Your task to perform on an android device: turn on javascript in the chrome app Image 0: 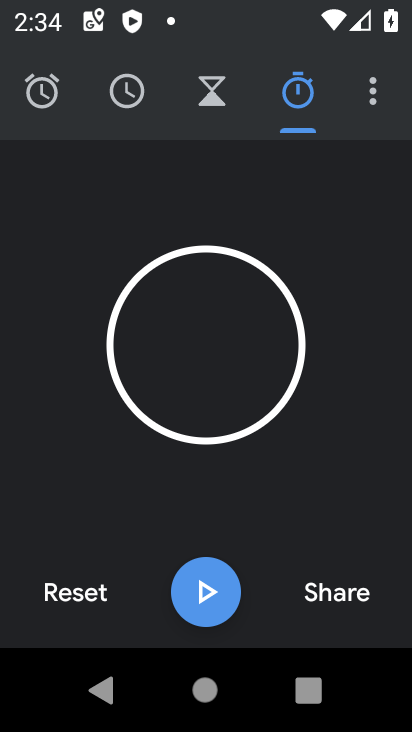
Step 0: press home button
Your task to perform on an android device: turn on javascript in the chrome app Image 1: 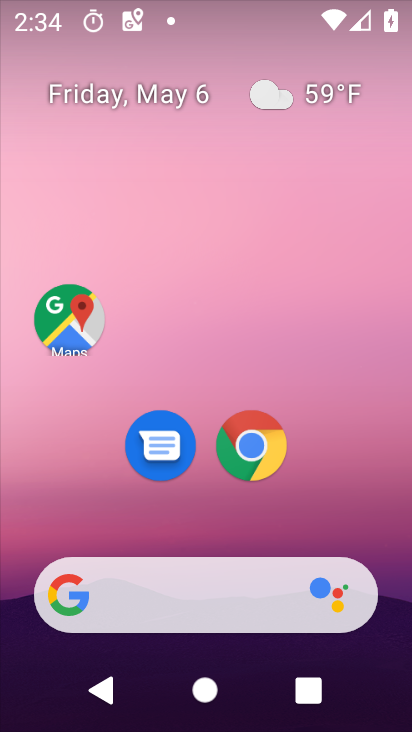
Step 1: drag from (176, 127) to (154, 59)
Your task to perform on an android device: turn on javascript in the chrome app Image 2: 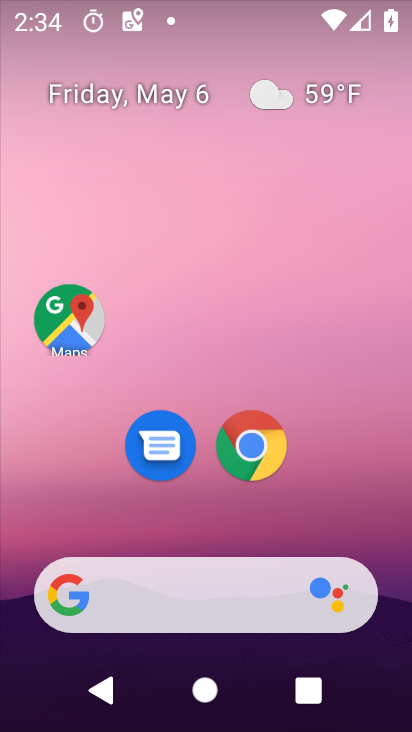
Step 2: drag from (185, 285) to (192, 234)
Your task to perform on an android device: turn on javascript in the chrome app Image 3: 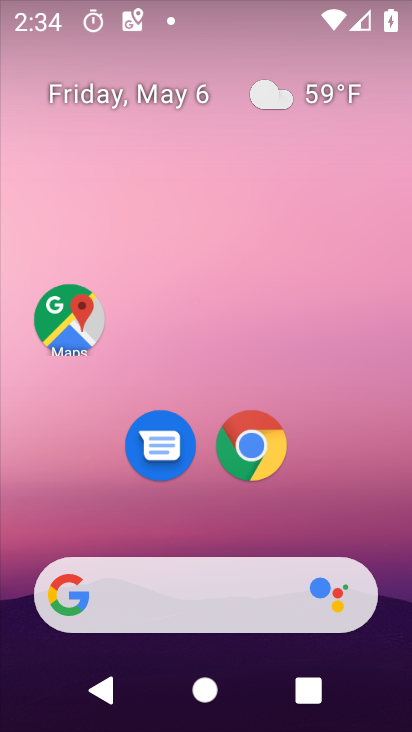
Step 3: drag from (358, 481) to (231, 166)
Your task to perform on an android device: turn on javascript in the chrome app Image 4: 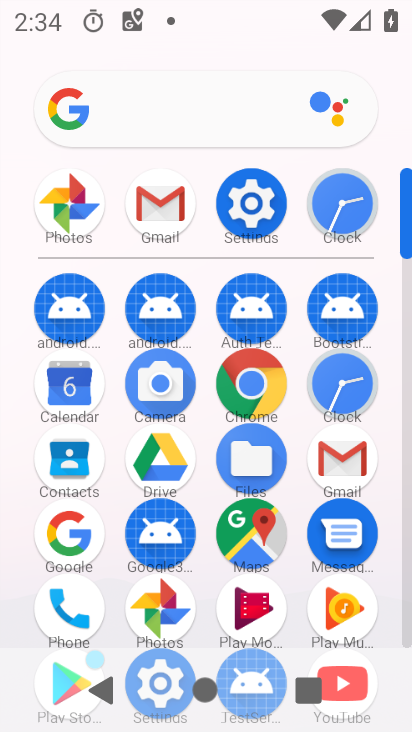
Step 4: click (262, 383)
Your task to perform on an android device: turn on javascript in the chrome app Image 5: 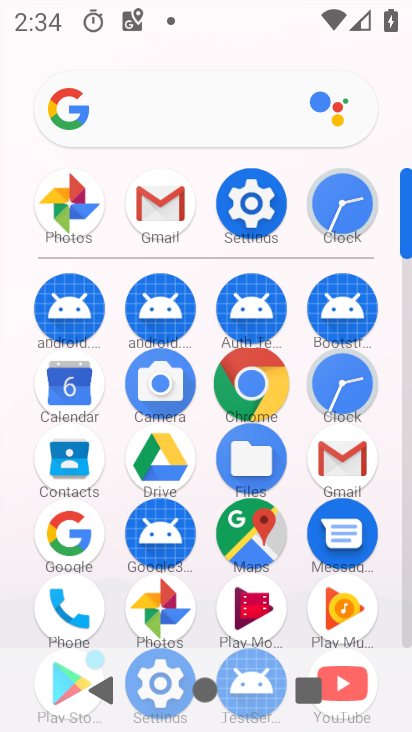
Step 5: click (261, 383)
Your task to perform on an android device: turn on javascript in the chrome app Image 6: 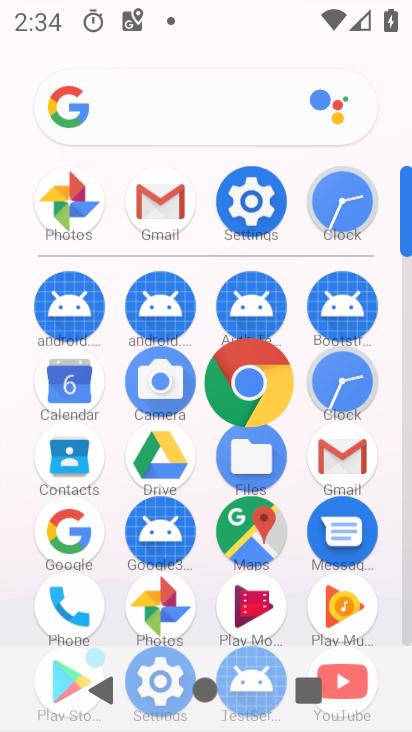
Step 6: click (259, 384)
Your task to perform on an android device: turn on javascript in the chrome app Image 7: 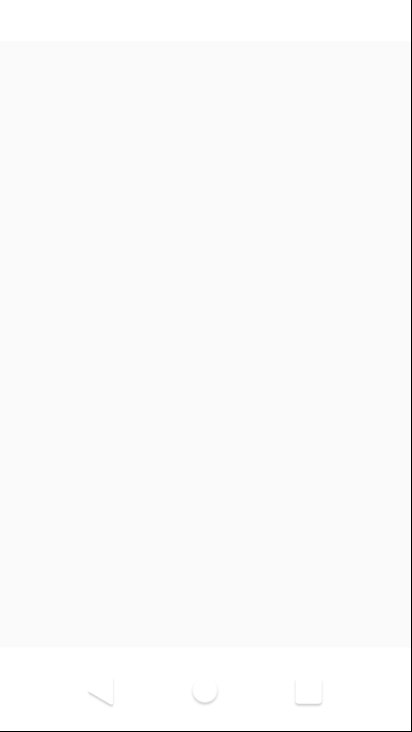
Step 7: click (259, 384)
Your task to perform on an android device: turn on javascript in the chrome app Image 8: 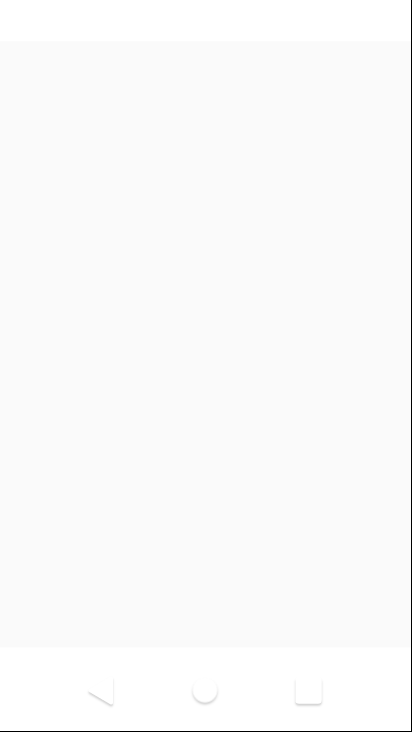
Step 8: click (259, 384)
Your task to perform on an android device: turn on javascript in the chrome app Image 9: 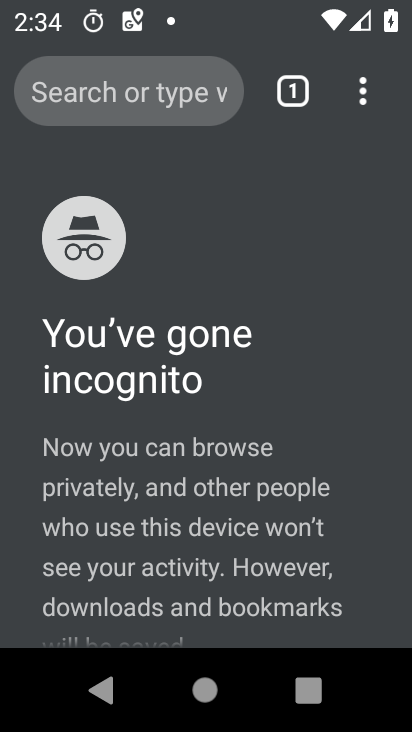
Step 9: click (360, 83)
Your task to perform on an android device: turn on javascript in the chrome app Image 10: 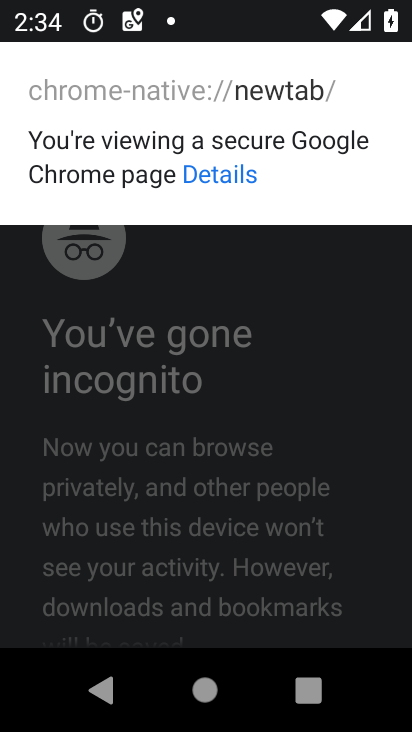
Step 10: click (359, 84)
Your task to perform on an android device: turn on javascript in the chrome app Image 11: 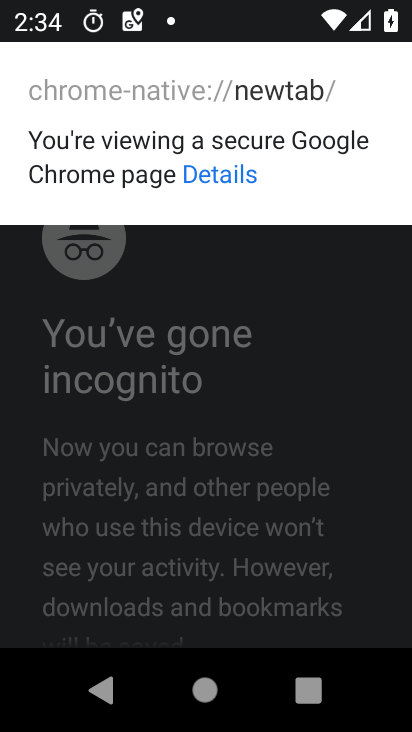
Step 11: click (317, 311)
Your task to perform on an android device: turn on javascript in the chrome app Image 12: 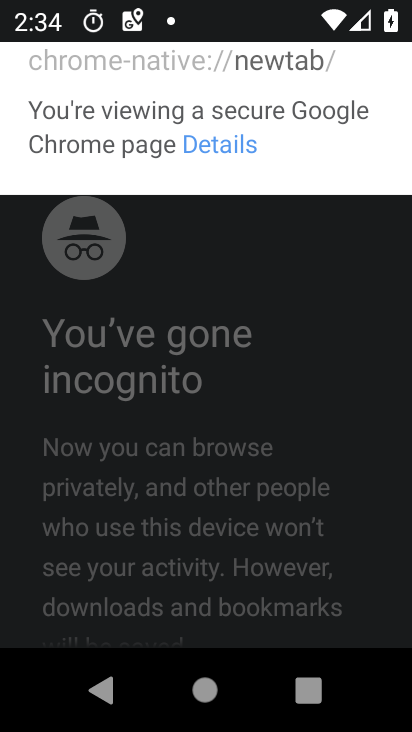
Step 12: click (320, 304)
Your task to perform on an android device: turn on javascript in the chrome app Image 13: 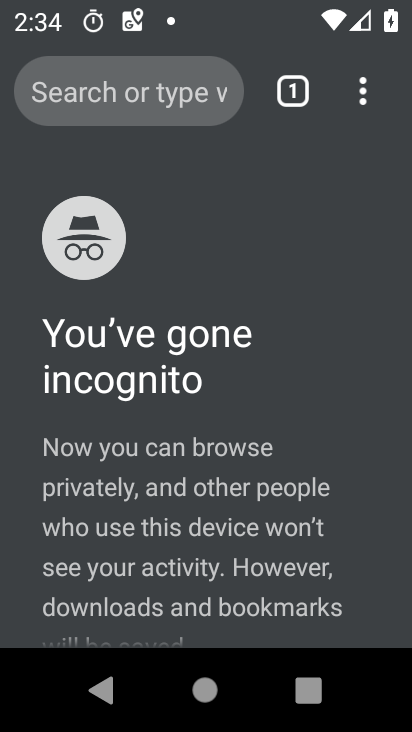
Step 13: click (320, 304)
Your task to perform on an android device: turn on javascript in the chrome app Image 14: 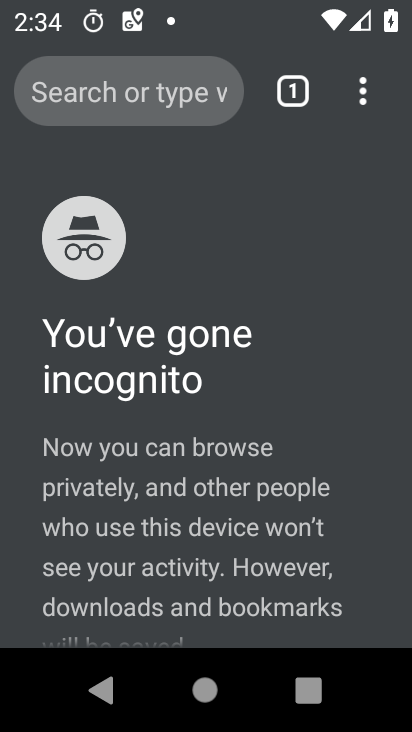
Step 14: click (320, 304)
Your task to perform on an android device: turn on javascript in the chrome app Image 15: 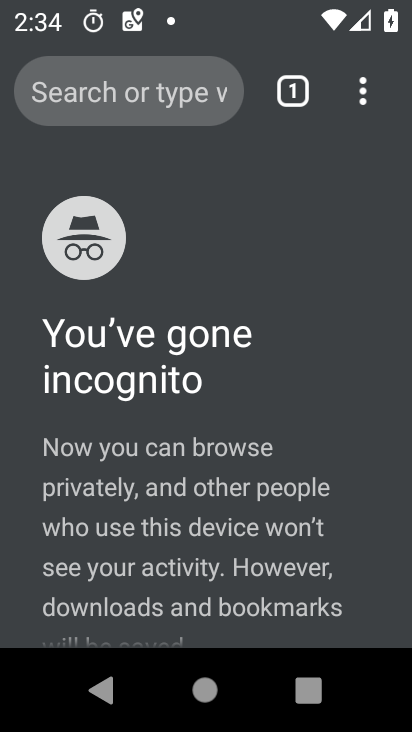
Step 15: drag from (359, 92) to (94, 467)
Your task to perform on an android device: turn on javascript in the chrome app Image 16: 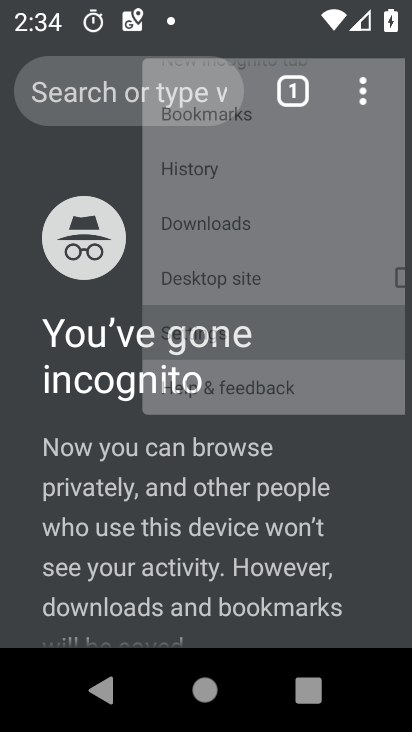
Step 16: click (94, 467)
Your task to perform on an android device: turn on javascript in the chrome app Image 17: 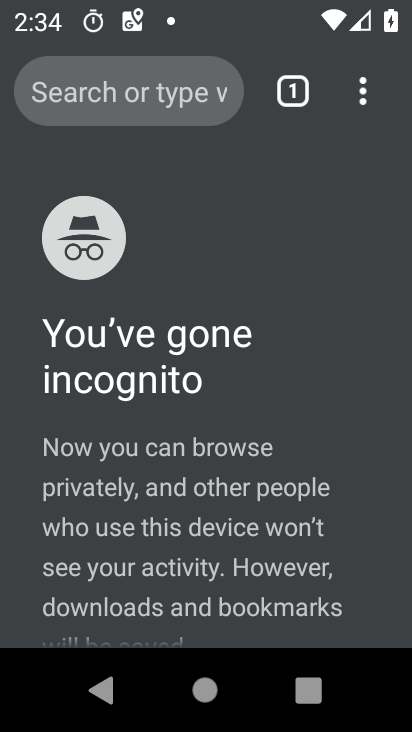
Step 17: click (93, 474)
Your task to perform on an android device: turn on javascript in the chrome app Image 18: 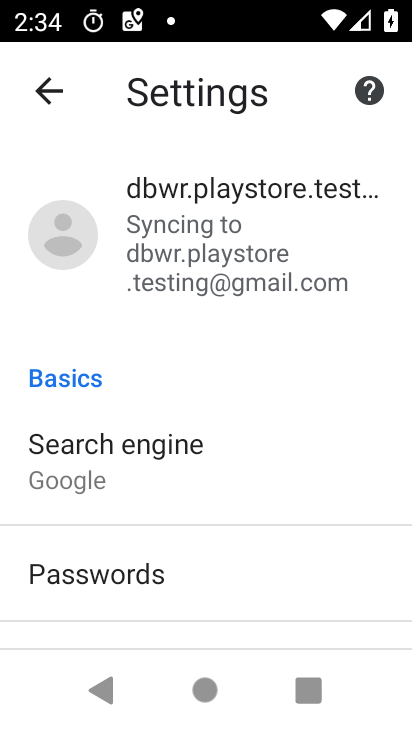
Step 18: drag from (214, 481) to (128, 174)
Your task to perform on an android device: turn on javascript in the chrome app Image 19: 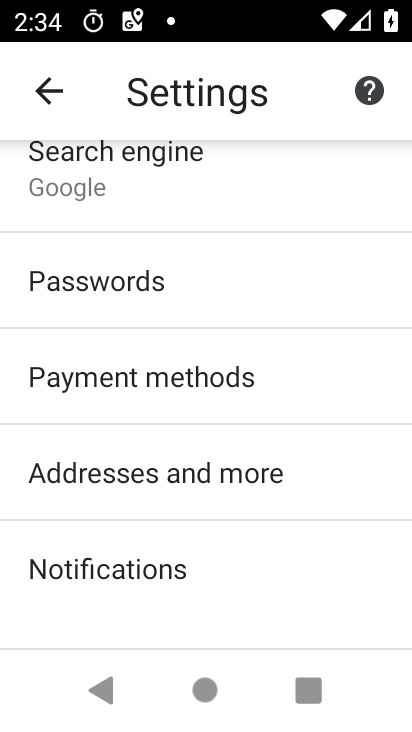
Step 19: drag from (163, 520) to (83, 184)
Your task to perform on an android device: turn on javascript in the chrome app Image 20: 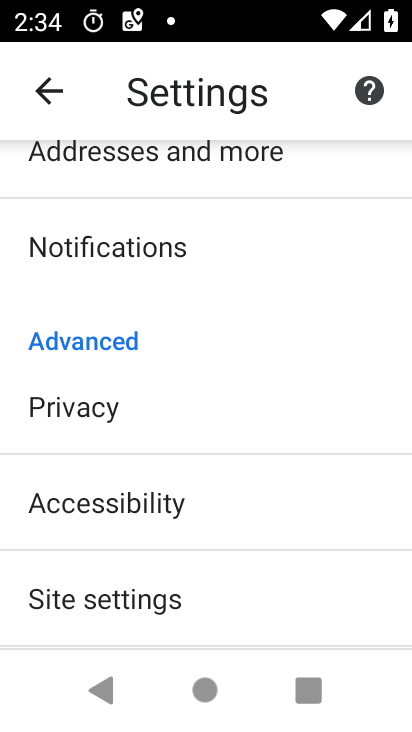
Step 20: click (120, 594)
Your task to perform on an android device: turn on javascript in the chrome app Image 21: 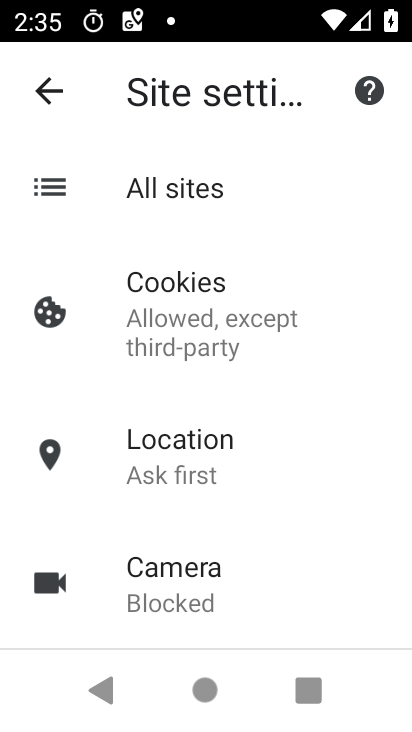
Step 21: drag from (182, 505) to (109, 91)
Your task to perform on an android device: turn on javascript in the chrome app Image 22: 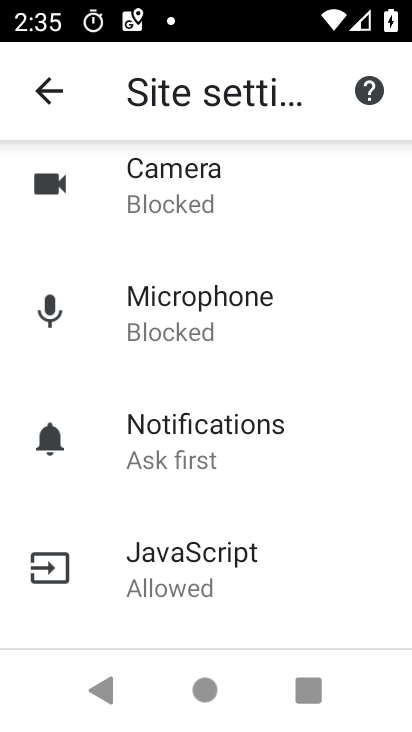
Step 22: drag from (208, 500) to (120, 41)
Your task to perform on an android device: turn on javascript in the chrome app Image 23: 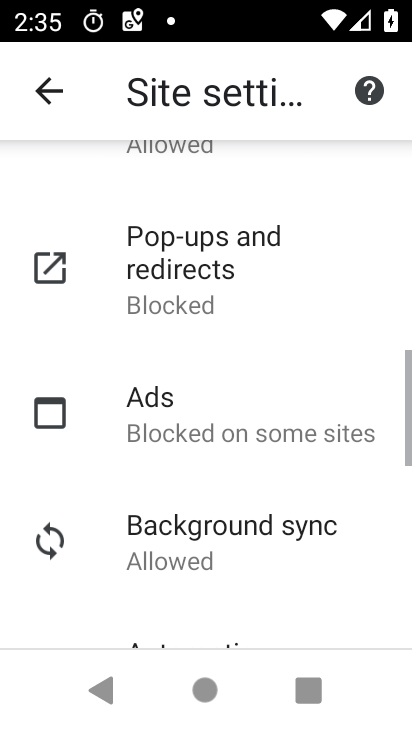
Step 23: drag from (136, 472) to (84, 3)
Your task to perform on an android device: turn on javascript in the chrome app Image 24: 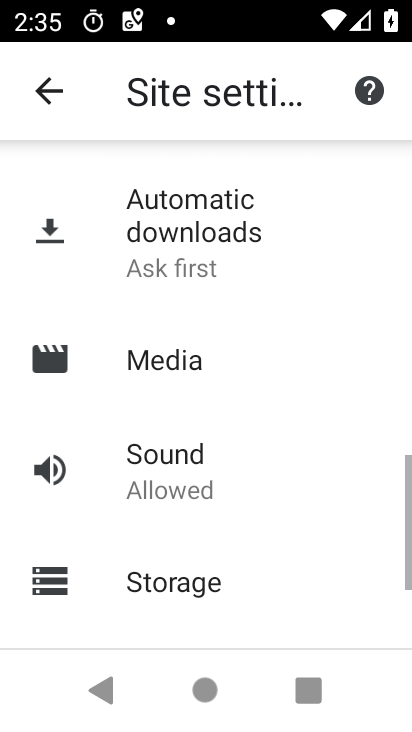
Step 24: drag from (203, 531) to (158, 13)
Your task to perform on an android device: turn on javascript in the chrome app Image 25: 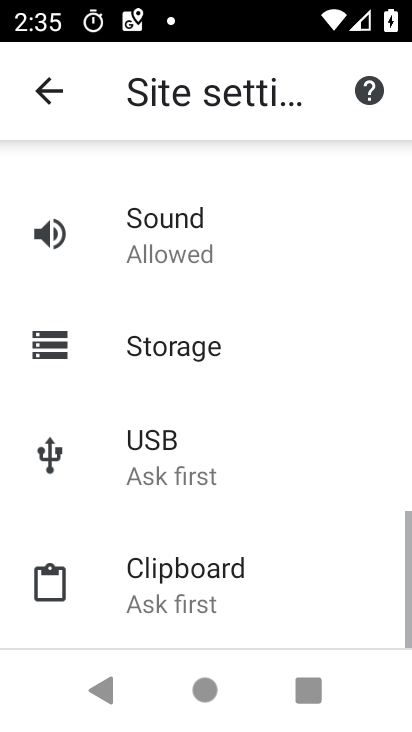
Step 25: drag from (220, 398) to (173, 112)
Your task to perform on an android device: turn on javascript in the chrome app Image 26: 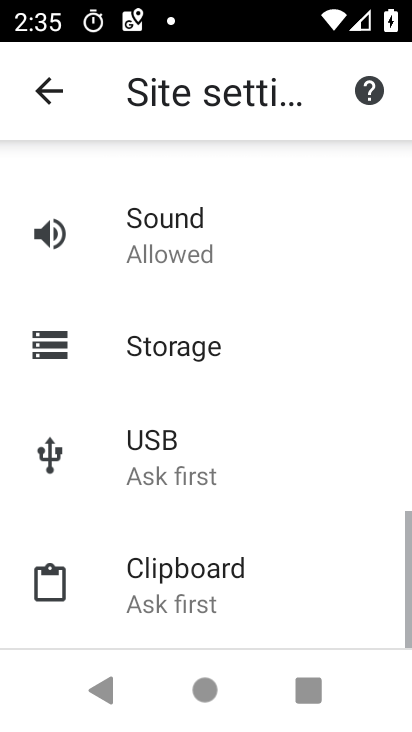
Step 26: drag from (173, 255) to (241, 634)
Your task to perform on an android device: turn on javascript in the chrome app Image 27: 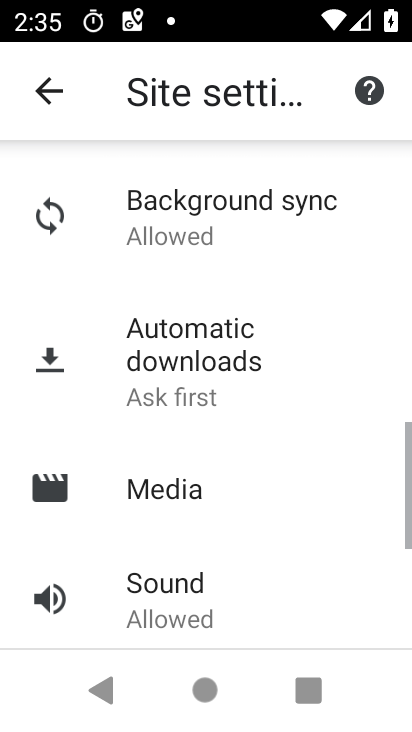
Step 27: drag from (176, 368) to (161, 627)
Your task to perform on an android device: turn on javascript in the chrome app Image 28: 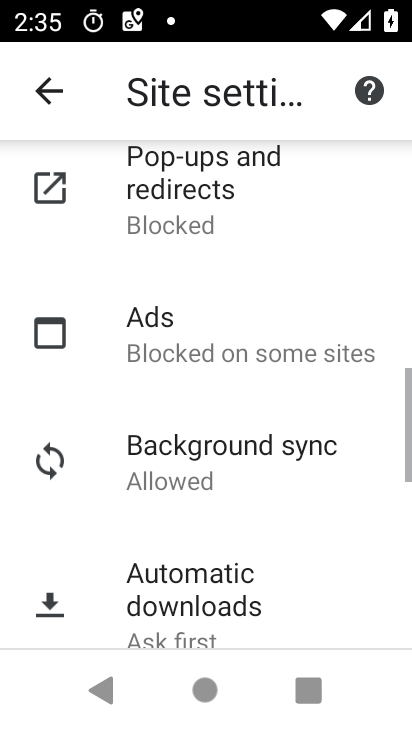
Step 28: drag from (160, 307) to (195, 691)
Your task to perform on an android device: turn on javascript in the chrome app Image 29: 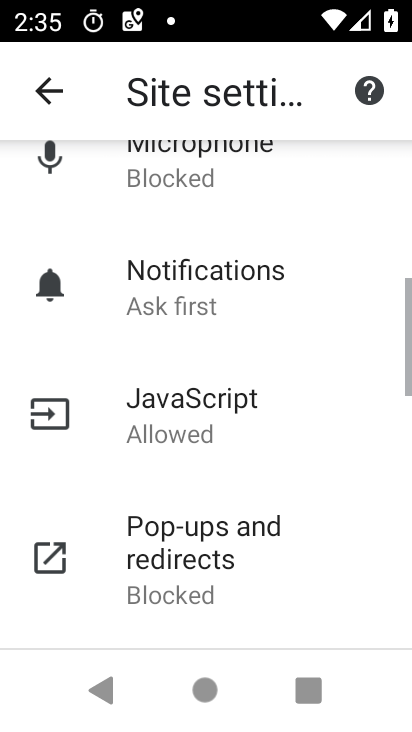
Step 29: drag from (133, 300) to (198, 535)
Your task to perform on an android device: turn on javascript in the chrome app Image 30: 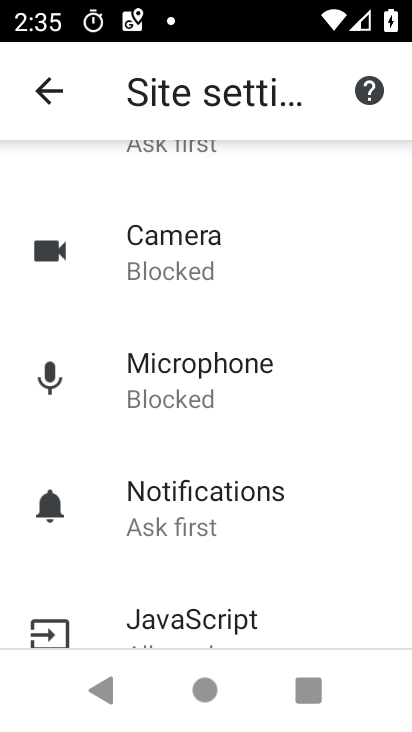
Step 30: click (174, 619)
Your task to perform on an android device: turn on javascript in the chrome app Image 31: 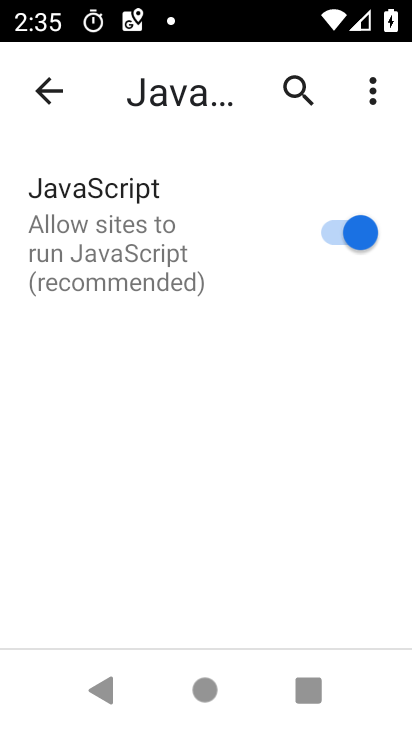
Step 31: task complete